Your task to perform on an android device: Go to Wikipedia Image 0: 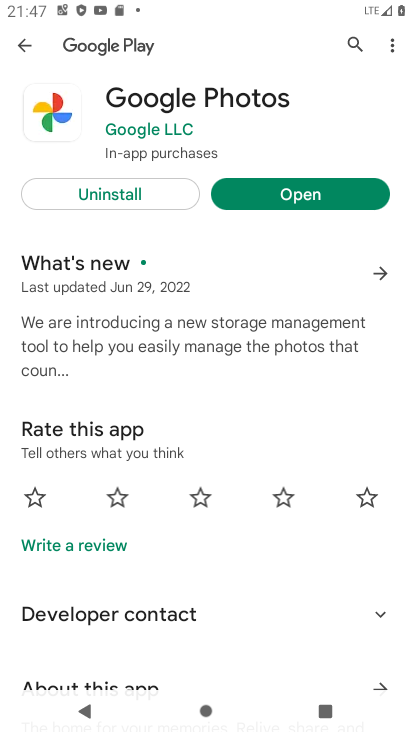
Step 0: press home button
Your task to perform on an android device: Go to Wikipedia Image 1: 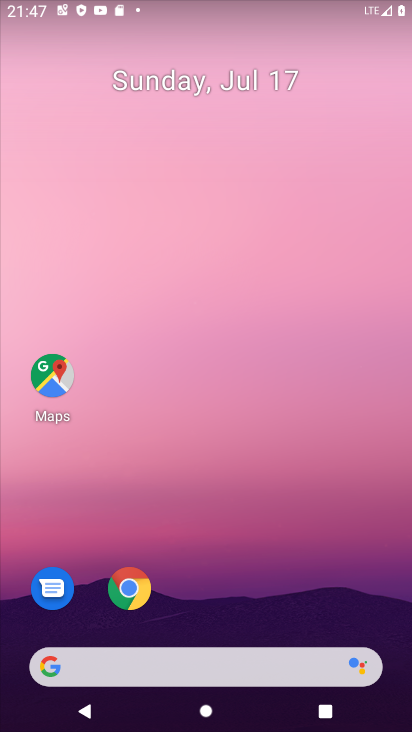
Step 1: drag from (259, 581) to (327, 44)
Your task to perform on an android device: Go to Wikipedia Image 2: 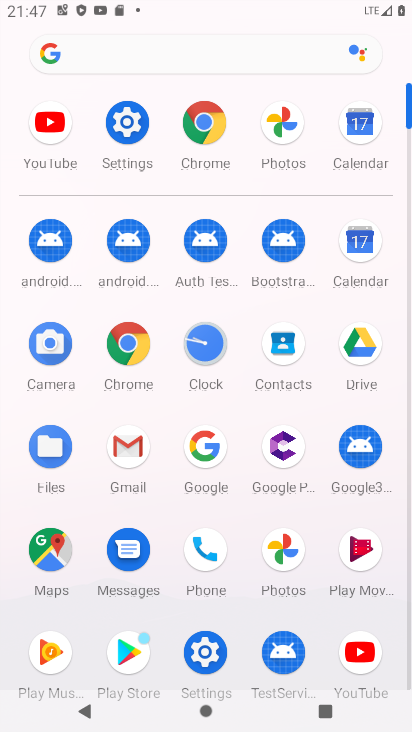
Step 2: click (219, 117)
Your task to perform on an android device: Go to Wikipedia Image 3: 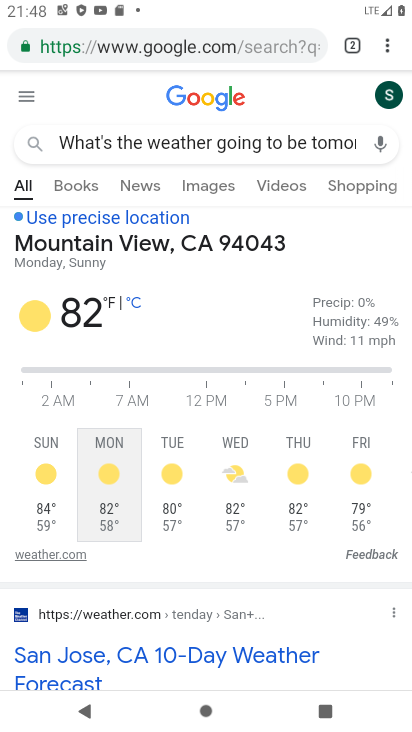
Step 3: click (224, 54)
Your task to perform on an android device: Go to Wikipedia Image 4: 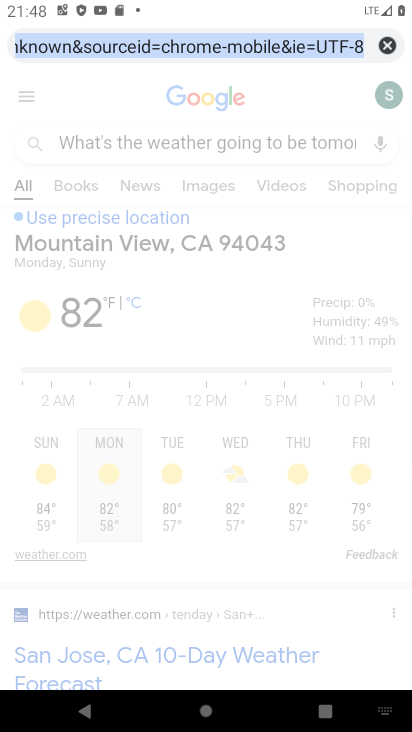
Step 4: type "Wikipedia"
Your task to perform on an android device: Go to Wikipedia Image 5: 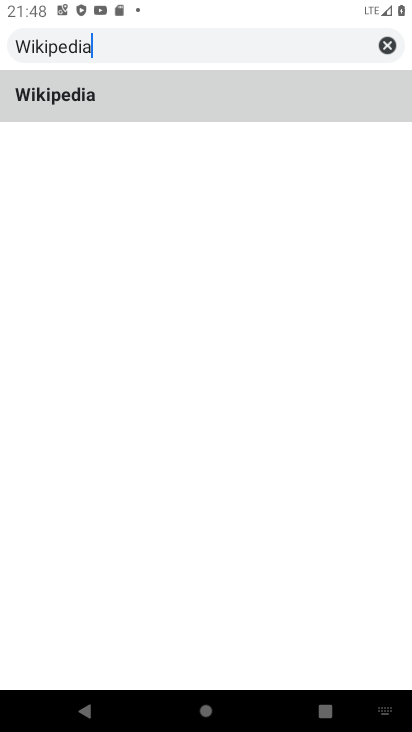
Step 5: type ""
Your task to perform on an android device: Go to Wikipedia Image 6: 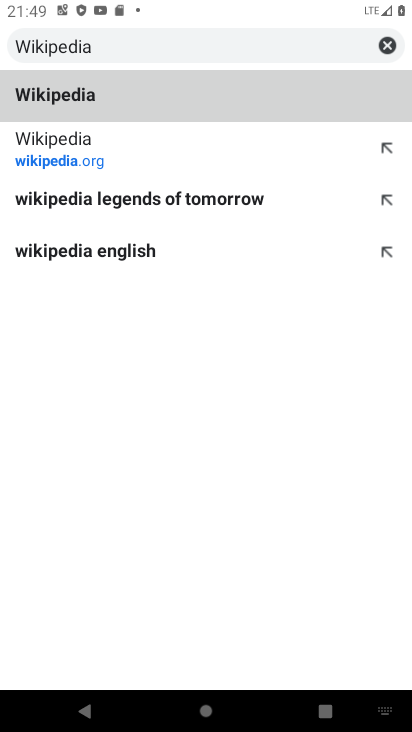
Step 6: click (68, 173)
Your task to perform on an android device: Go to Wikipedia Image 7: 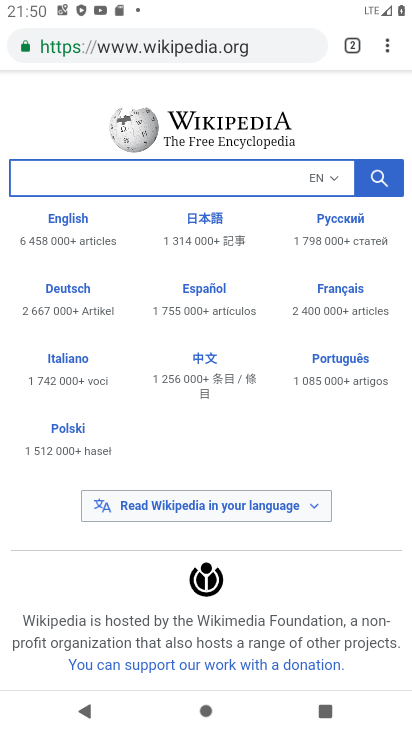
Step 7: task complete